Your task to perform on an android device: Go to Maps Image 0: 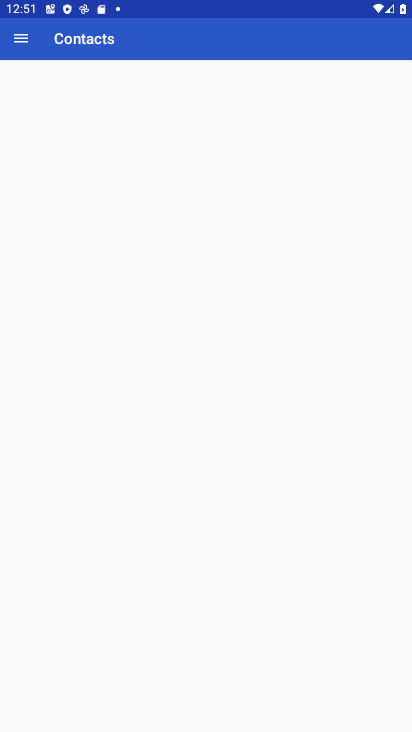
Step 0: press home button
Your task to perform on an android device: Go to Maps Image 1: 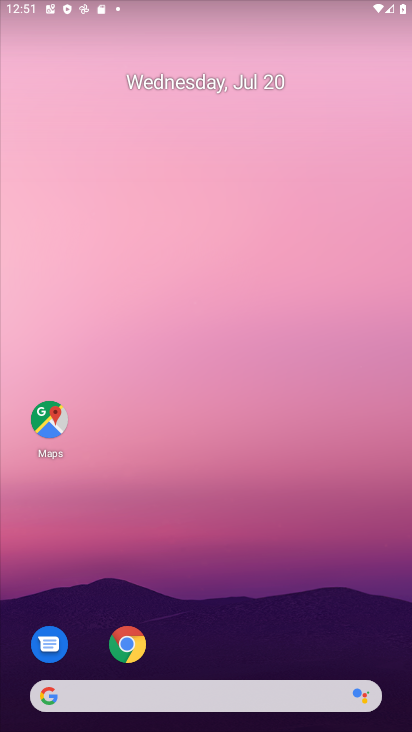
Step 1: drag from (210, 647) to (208, 61)
Your task to perform on an android device: Go to Maps Image 2: 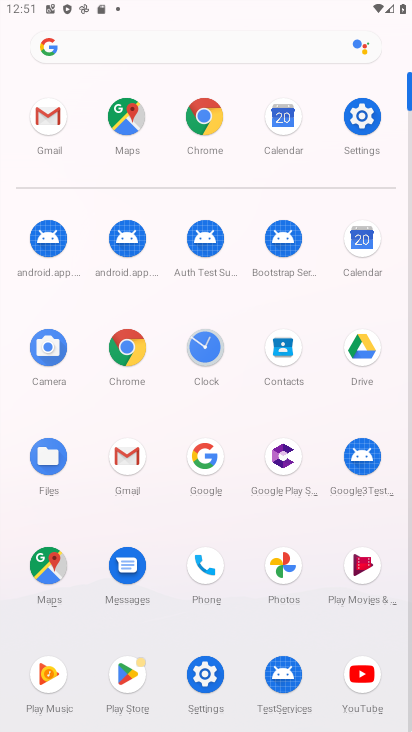
Step 2: click (130, 127)
Your task to perform on an android device: Go to Maps Image 3: 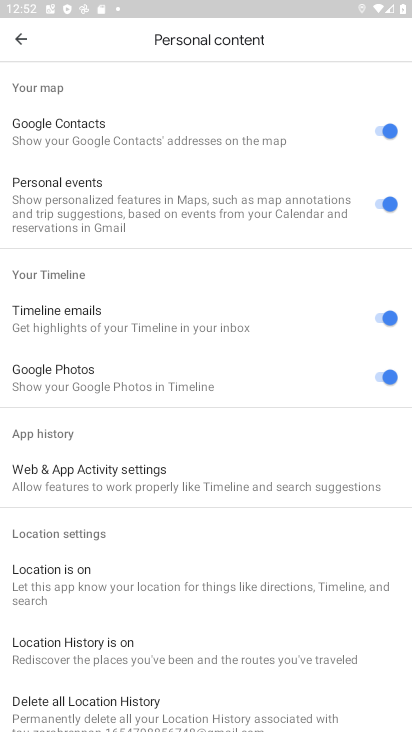
Step 3: task complete